Your task to perform on an android device: What is the news today? Image 0: 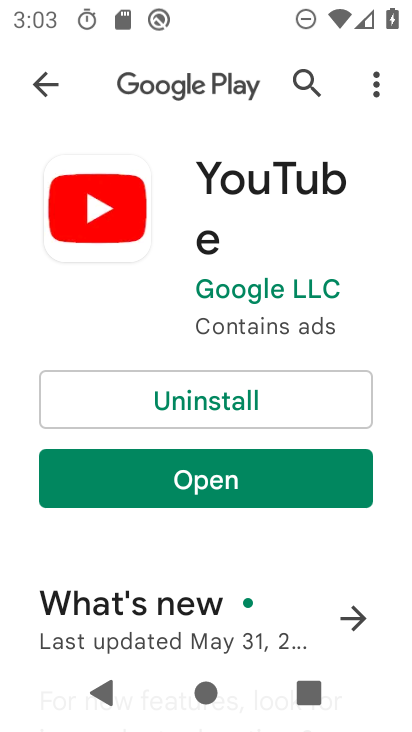
Step 0: press home button
Your task to perform on an android device: What is the news today? Image 1: 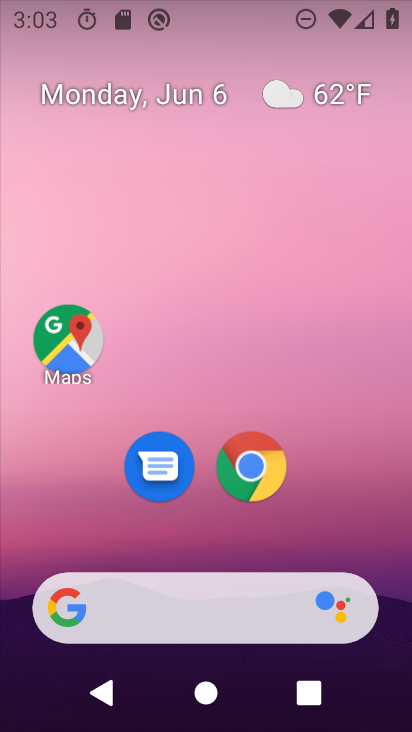
Step 1: click (168, 609)
Your task to perform on an android device: What is the news today? Image 2: 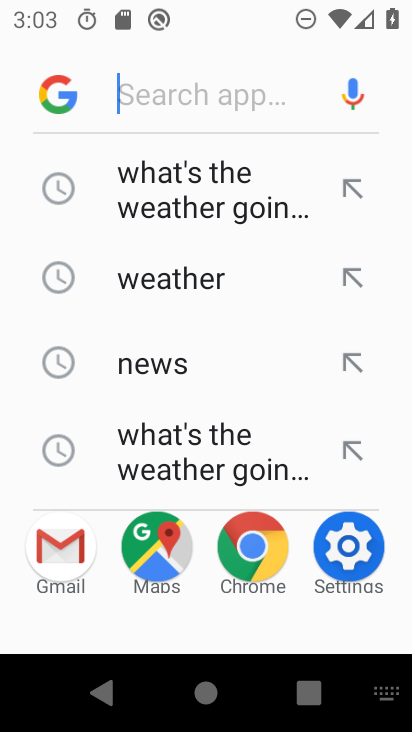
Step 2: click (159, 380)
Your task to perform on an android device: What is the news today? Image 3: 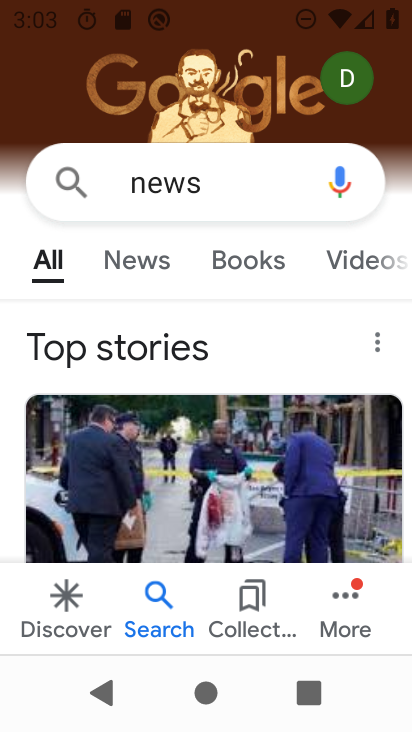
Step 3: task complete